Your task to perform on an android device: Show me popular videos on Youtube Image 0: 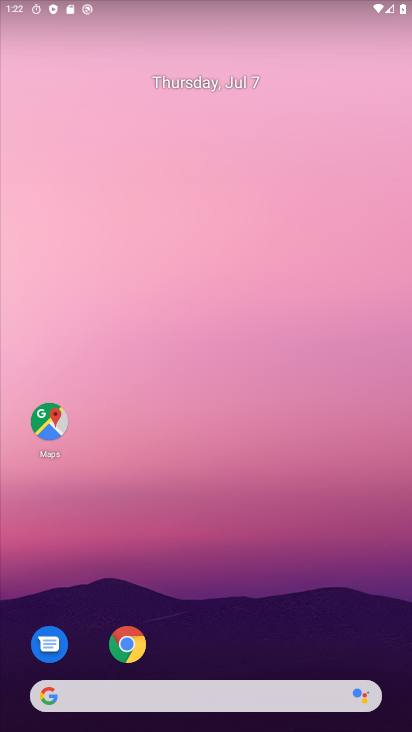
Step 0: drag from (257, 713) to (247, 41)
Your task to perform on an android device: Show me popular videos on Youtube Image 1: 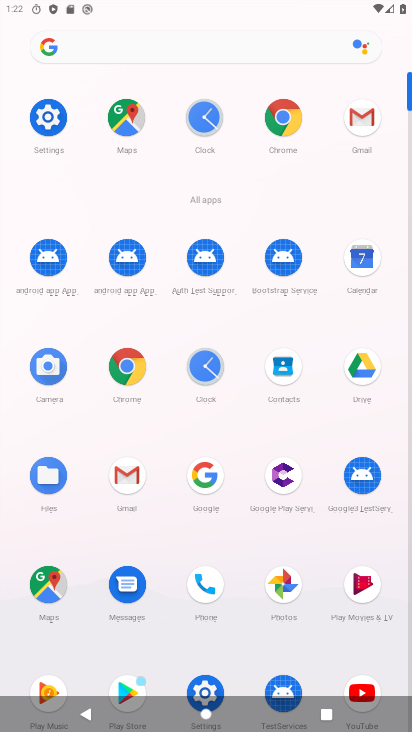
Step 1: click (366, 693)
Your task to perform on an android device: Show me popular videos on Youtube Image 2: 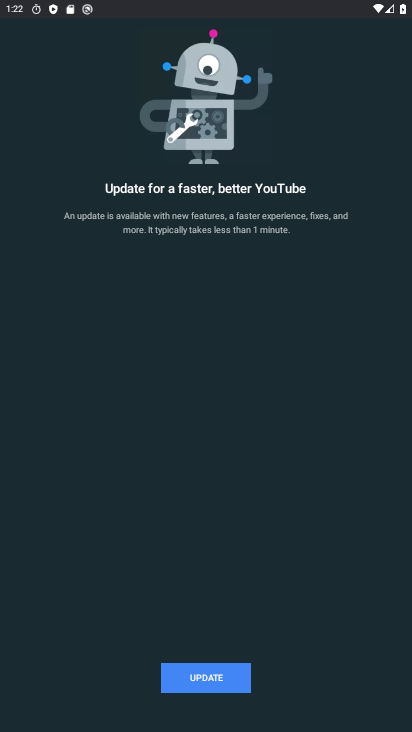
Step 2: click (211, 683)
Your task to perform on an android device: Show me popular videos on Youtube Image 3: 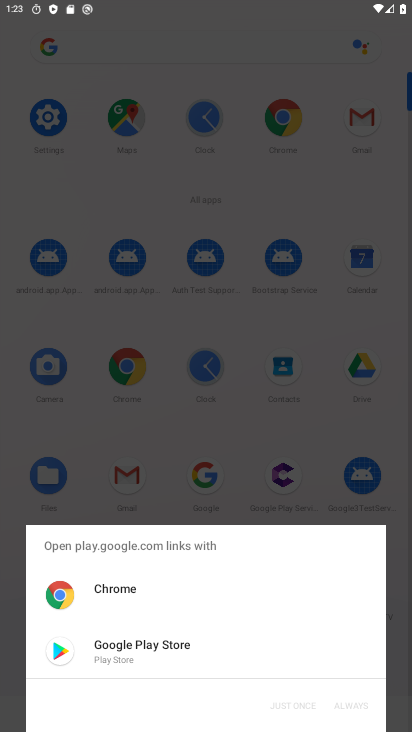
Step 3: click (161, 647)
Your task to perform on an android device: Show me popular videos on Youtube Image 4: 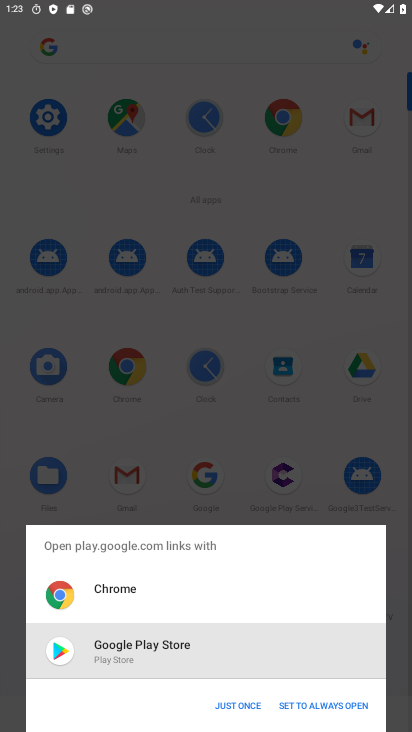
Step 4: click (228, 705)
Your task to perform on an android device: Show me popular videos on Youtube Image 5: 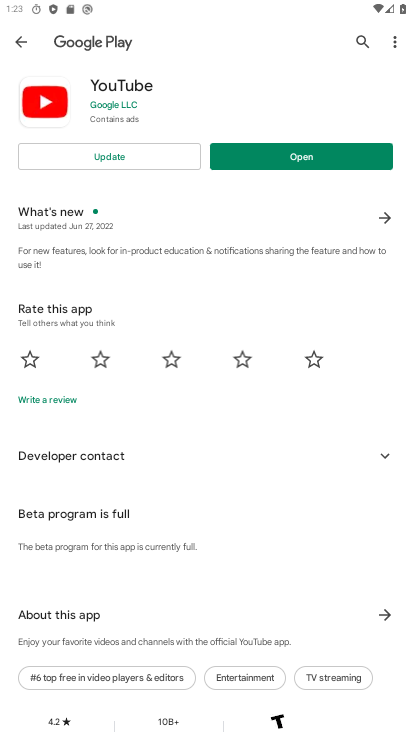
Step 5: click (311, 156)
Your task to perform on an android device: Show me popular videos on Youtube Image 6: 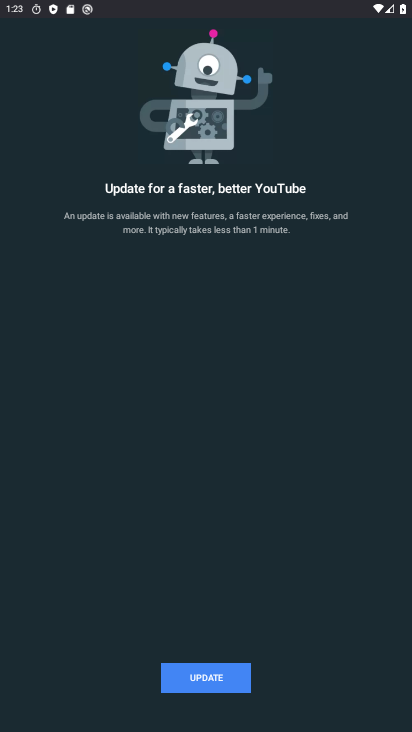
Step 6: task complete